Your task to perform on an android device: Show me productivity apps on the Play Store Image 0: 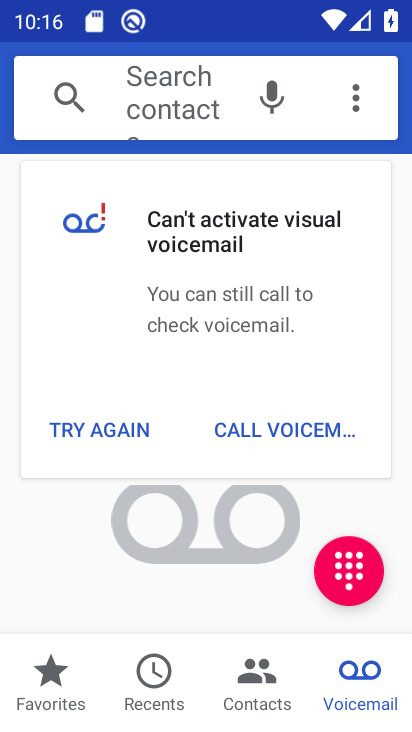
Step 0: press home button
Your task to perform on an android device: Show me productivity apps on the Play Store Image 1: 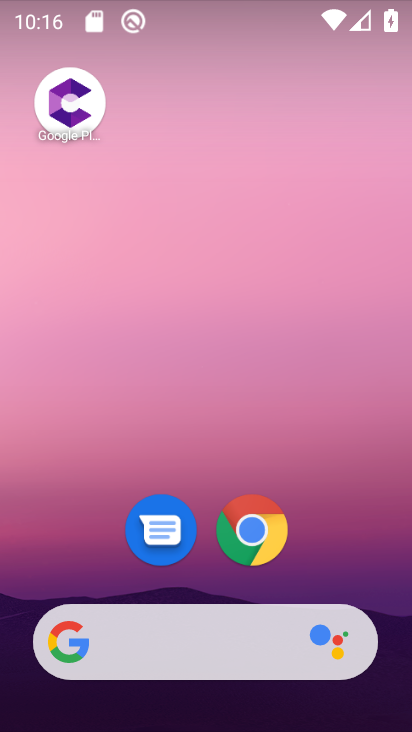
Step 1: drag from (232, 637) to (276, 11)
Your task to perform on an android device: Show me productivity apps on the Play Store Image 2: 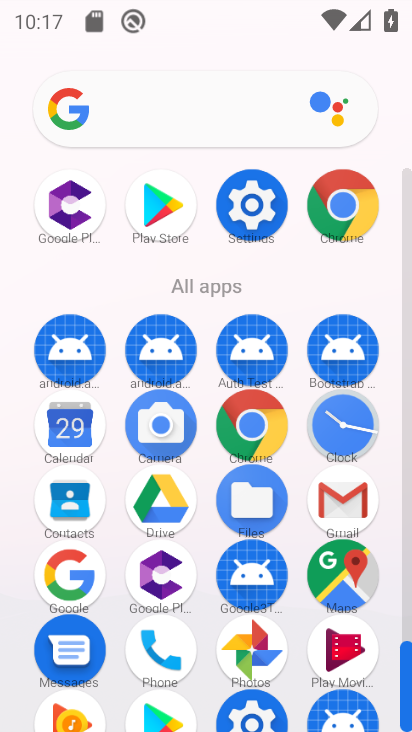
Step 2: click (150, 710)
Your task to perform on an android device: Show me productivity apps on the Play Store Image 3: 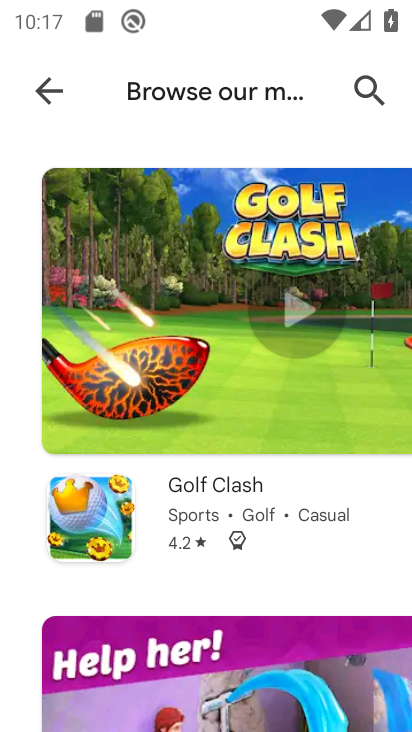
Step 3: click (55, 94)
Your task to perform on an android device: Show me productivity apps on the Play Store Image 4: 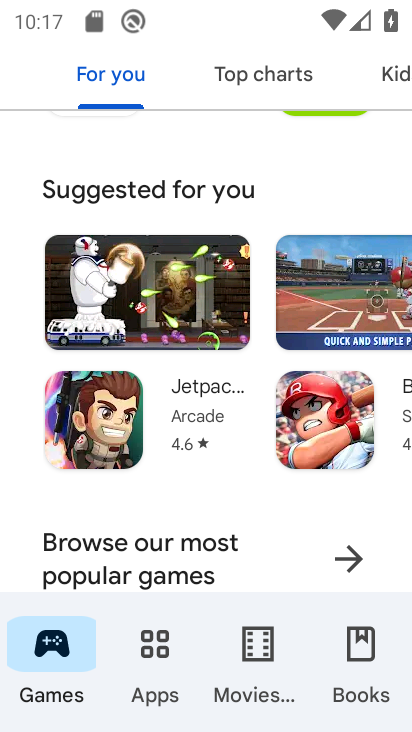
Step 4: click (163, 648)
Your task to perform on an android device: Show me productivity apps on the Play Store Image 5: 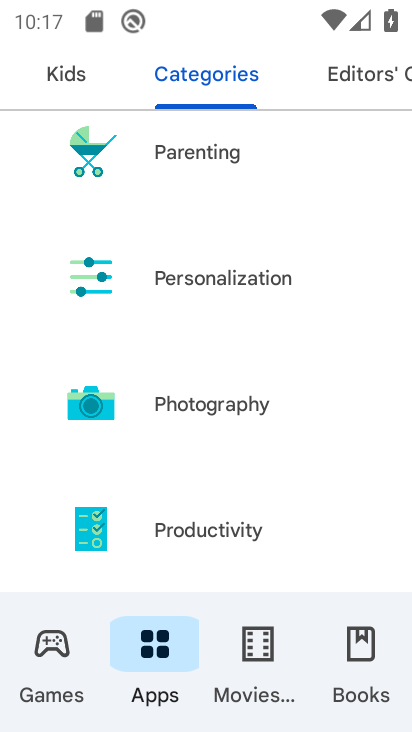
Step 5: drag from (222, 606) to (225, 320)
Your task to perform on an android device: Show me productivity apps on the Play Store Image 6: 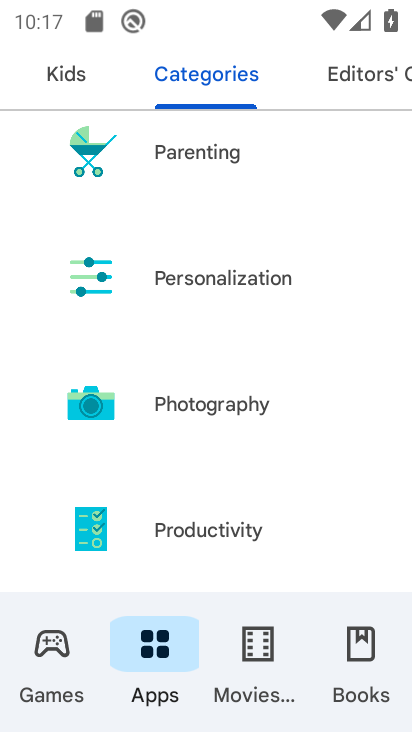
Step 6: click (202, 515)
Your task to perform on an android device: Show me productivity apps on the Play Store Image 7: 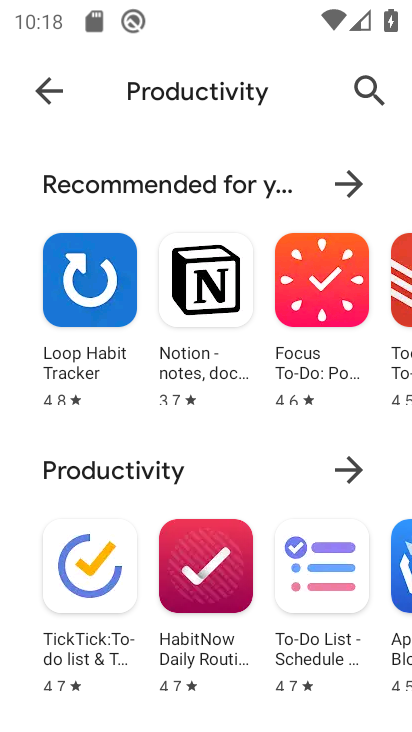
Step 7: task complete